Your task to perform on an android device: Open Android settings Image 0: 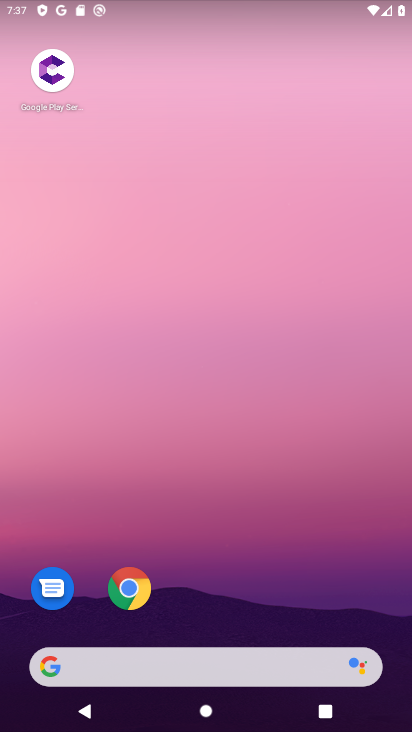
Step 0: drag from (48, 674) to (269, 11)
Your task to perform on an android device: Open Android settings Image 1: 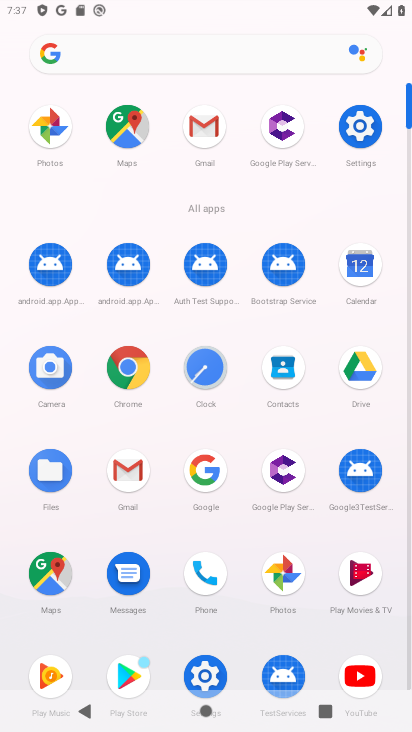
Step 1: click (209, 682)
Your task to perform on an android device: Open Android settings Image 2: 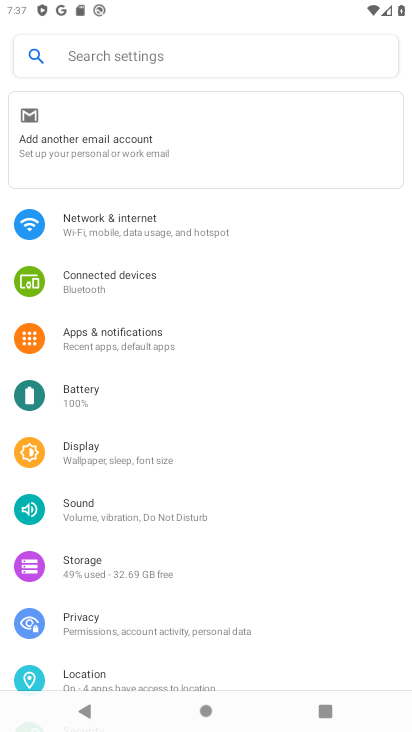
Step 2: drag from (157, 643) to (255, 50)
Your task to perform on an android device: Open Android settings Image 3: 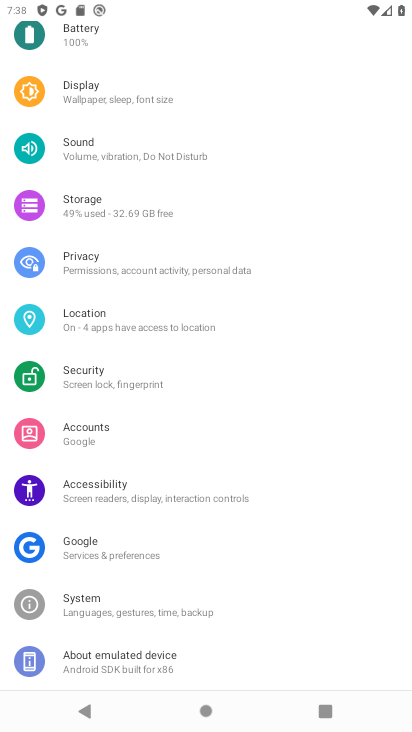
Step 3: click (120, 665)
Your task to perform on an android device: Open Android settings Image 4: 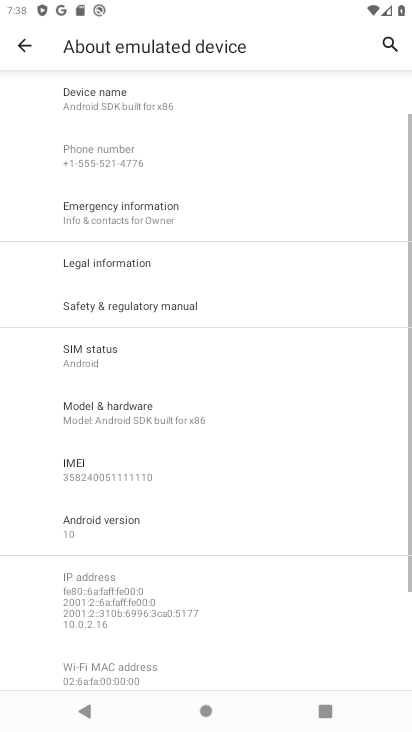
Step 4: click (124, 542)
Your task to perform on an android device: Open Android settings Image 5: 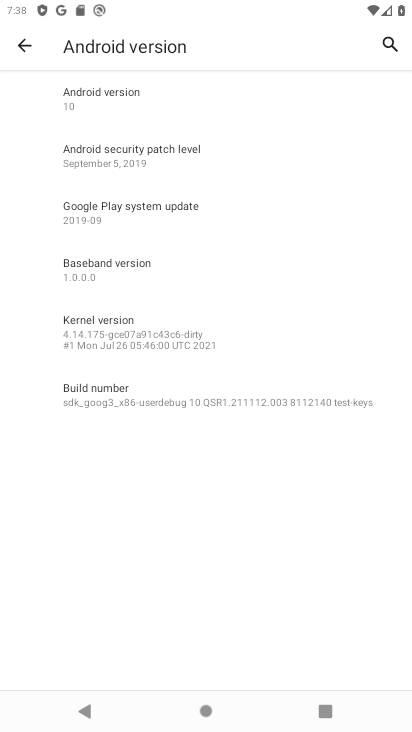
Step 5: task complete